Your task to perform on an android device: clear all cookies in the chrome app Image 0: 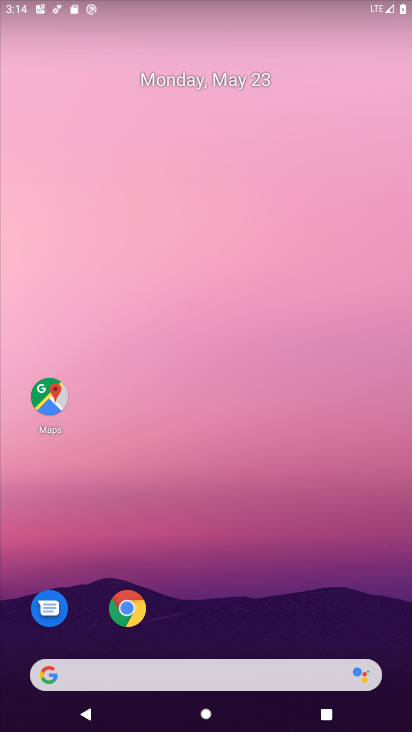
Step 0: click (131, 612)
Your task to perform on an android device: clear all cookies in the chrome app Image 1: 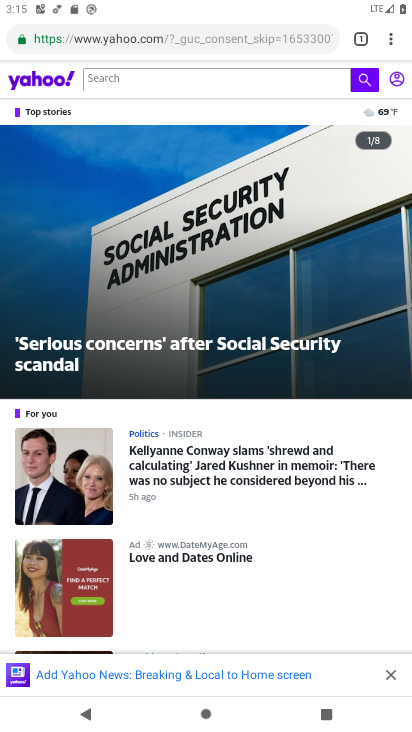
Step 1: click (393, 52)
Your task to perform on an android device: clear all cookies in the chrome app Image 2: 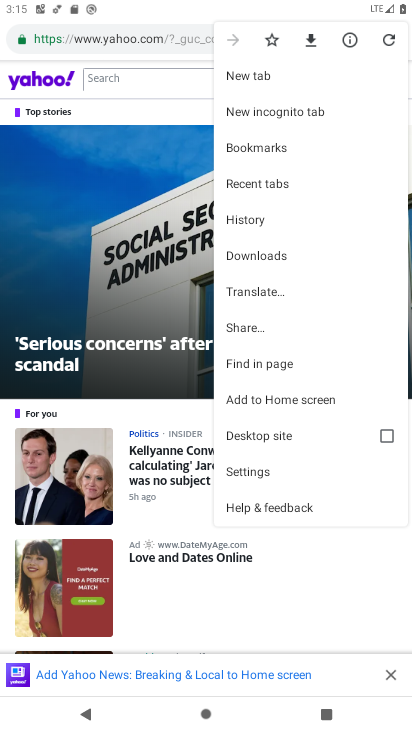
Step 2: click (267, 210)
Your task to perform on an android device: clear all cookies in the chrome app Image 3: 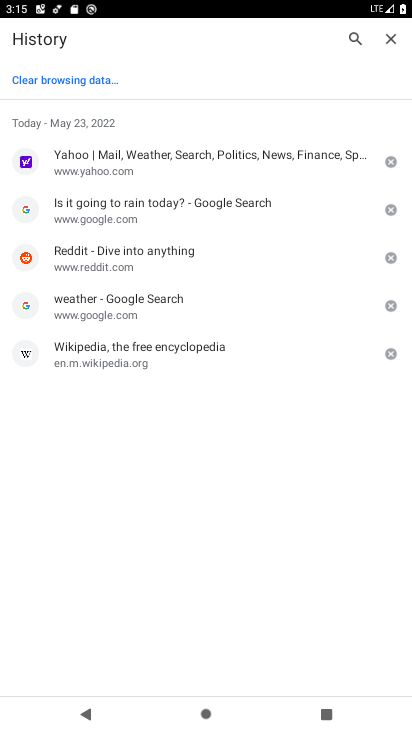
Step 3: click (87, 81)
Your task to perform on an android device: clear all cookies in the chrome app Image 4: 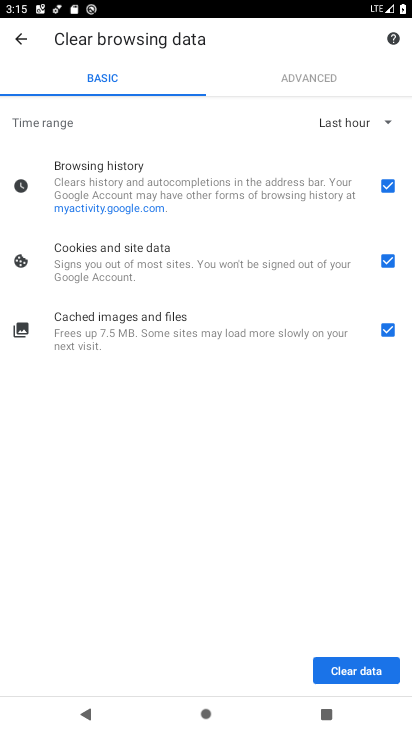
Step 4: click (391, 336)
Your task to perform on an android device: clear all cookies in the chrome app Image 5: 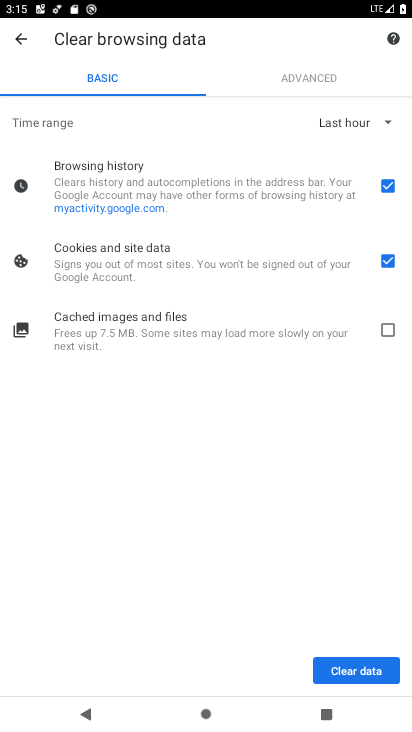
Step 5: click (391, 182)
Your task to perform on an android device: clear all cookies in the chrome app Image 6: 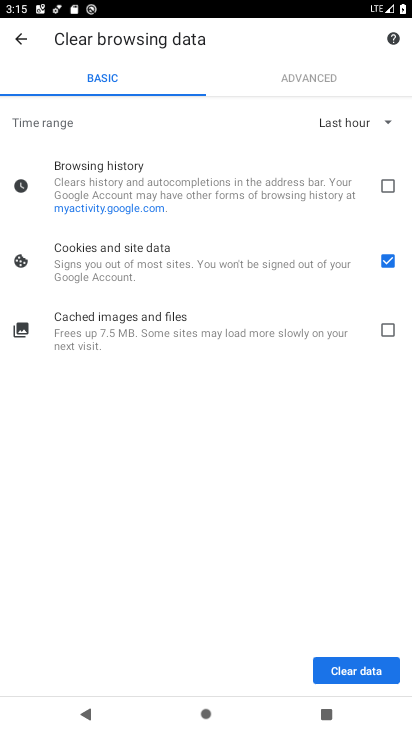
Step 6: click (373, 674)
Your task to perform on an android device: clear all cookies in the chrome app Image 7: 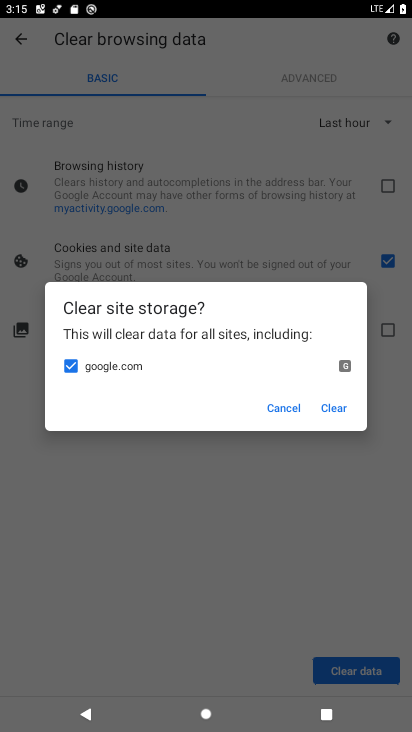
Step 7: click (353, 416)
Your task to perform on an android device: clear all cookies in the chrome app Image 8: 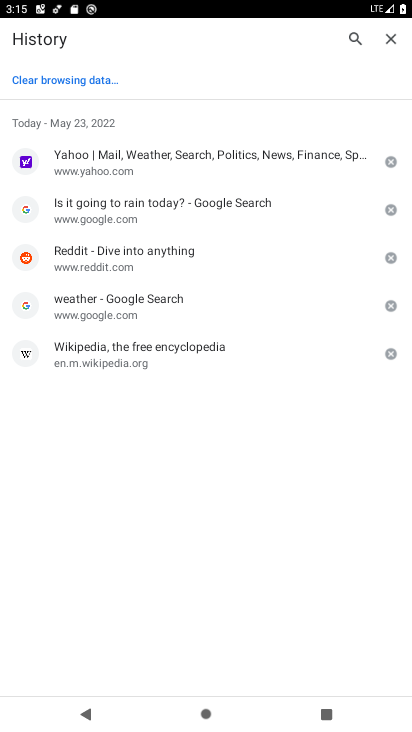
Step 8: task complete